Your task to perform on an android device: snooze an email in the gmail app Image 0: 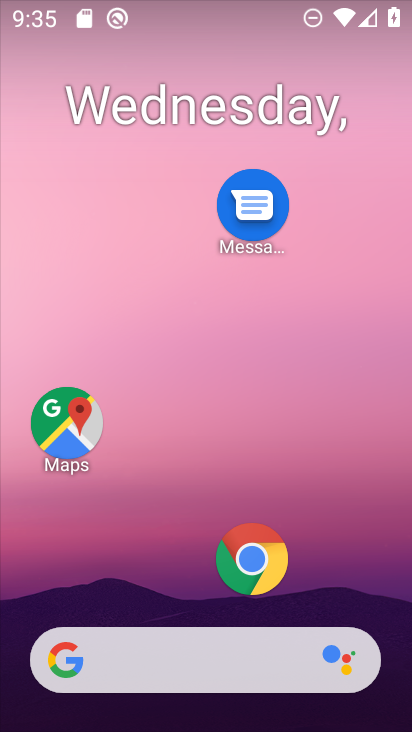
Step 0: drag from (159, 584) to (214, 120)
Your task to perform on an android device: snooze an email in the gmail app Image 1: 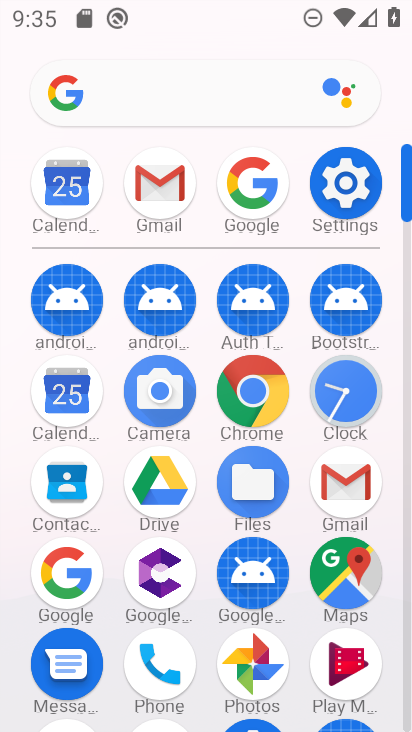
Step 1: click (361, 494)
Your task to perform on an android device: snooze an email in the gmail app Image 2: 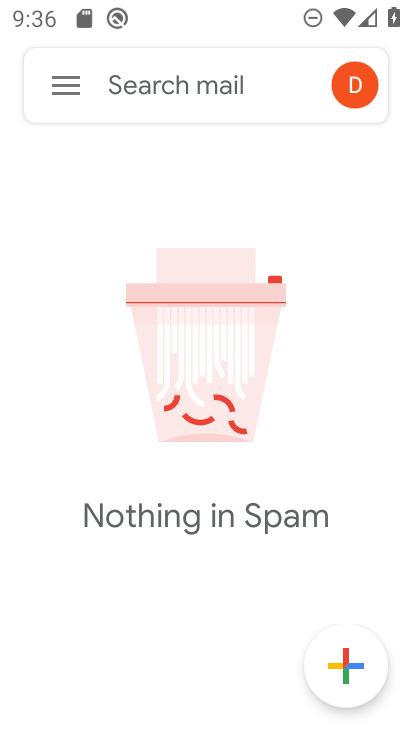
Step 2: press home button
Your task to perform on an android device: snooze an email in the gmail app Image 3: 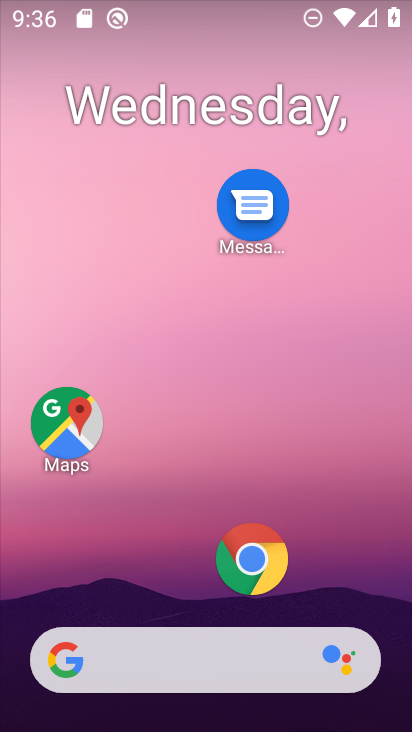
Step 3: drag from (205, 582) to (279, 173)
Your task to perform on an android device: snooze an email in the gmail app Image 4: 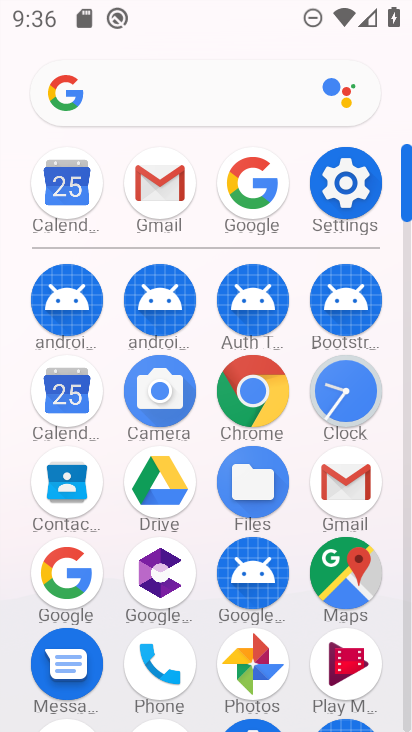
Step 4: click (349, 484)
Your task to perform on an android device: snooze an email in the gmail app Image 5: 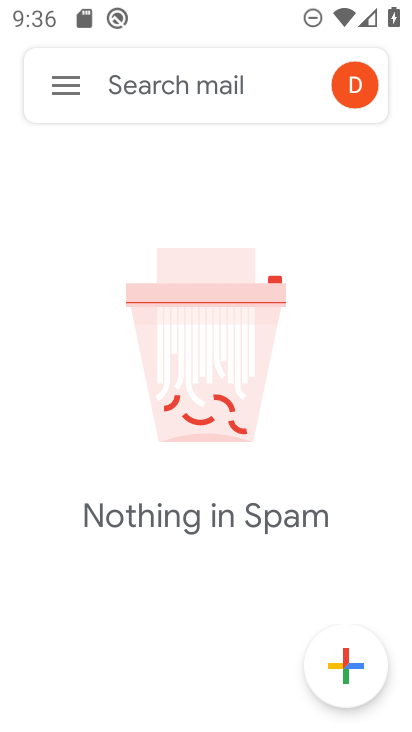
Step 5: click (76, 95)
Your task to perform on an android device: snooze an email in the gmail app Image 6: 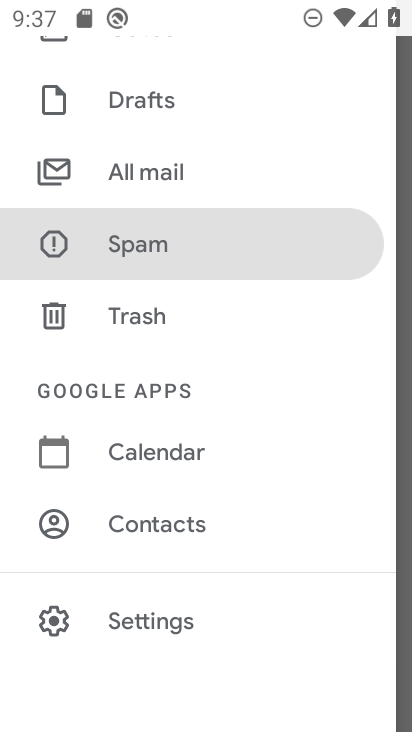
Step 6: drag from (159, 324) to (142, 628)
Your task to perform on an android device: snooze an email in the gmail app Image 7: 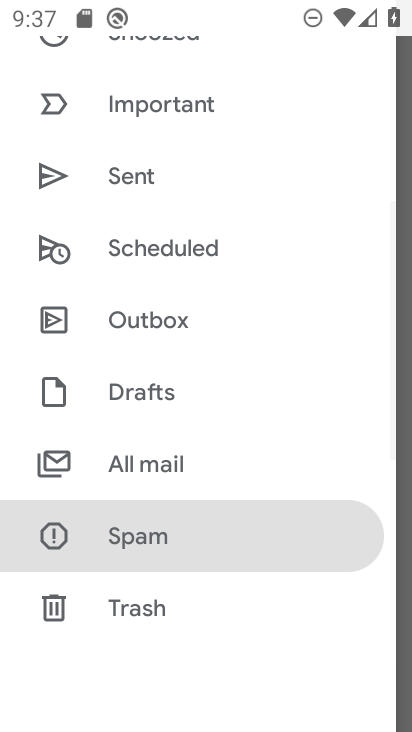
Step 7: drag from (181, 225) to (174, 461)
Your task to perform on an android device: snooze an email in the gmail app Image 8: 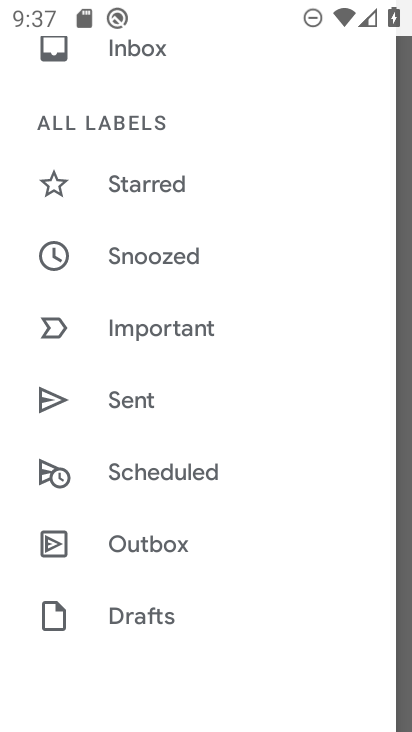
Step 8: click (178, 262)
Your task to perform on an android device: snooze an email in the gmail app Image 9: 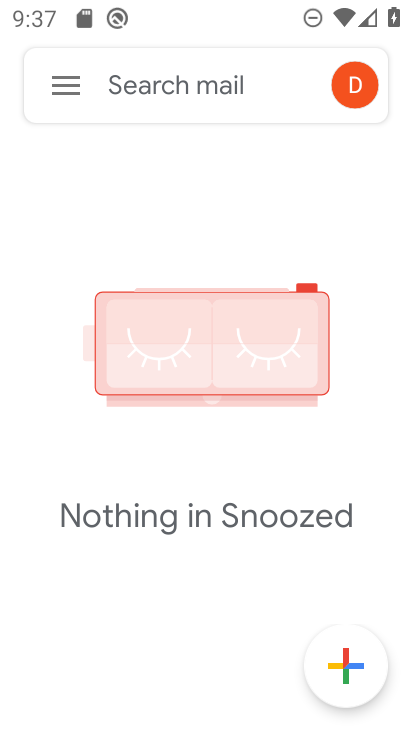
Step 9: task complete